Your task to perform on an android device: Go to eBay Image 0: 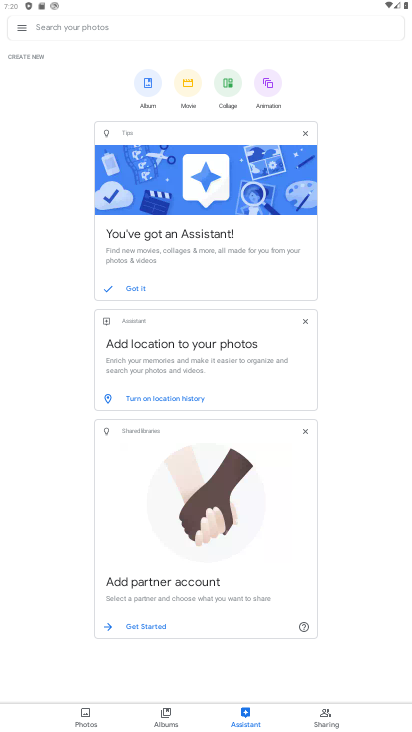
Step 0: press home button
Your task to perform on an android device: Go to eBay Image 1: 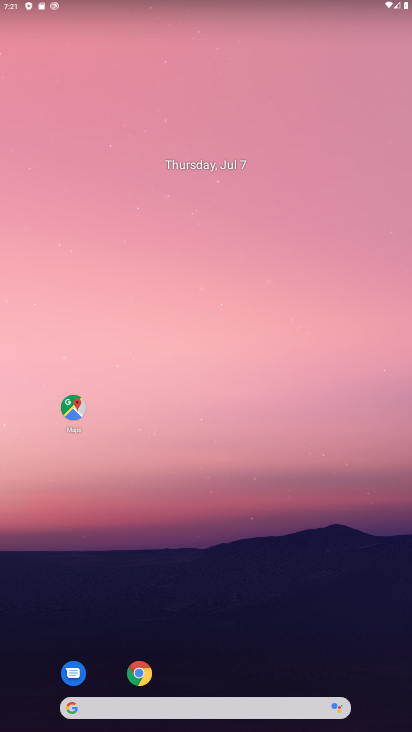
Step 1: click (140, 675)
Your task to perform on an android device: Go to eBay Image 2: 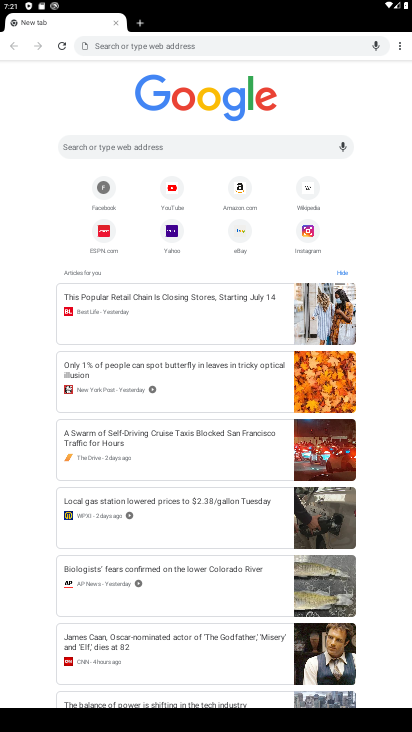
Step 2: click (239, 43)
Your task to perform on an android device: Go to eBay Image 3: 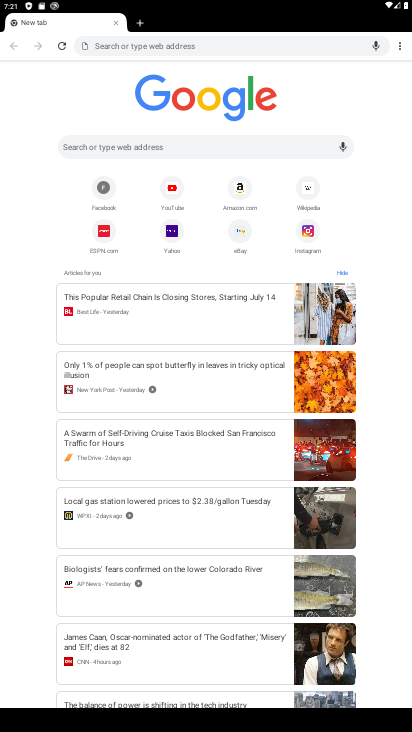
Step 3: type "eBay"
Your task to perform on an android device: Go to eBay Image 4: 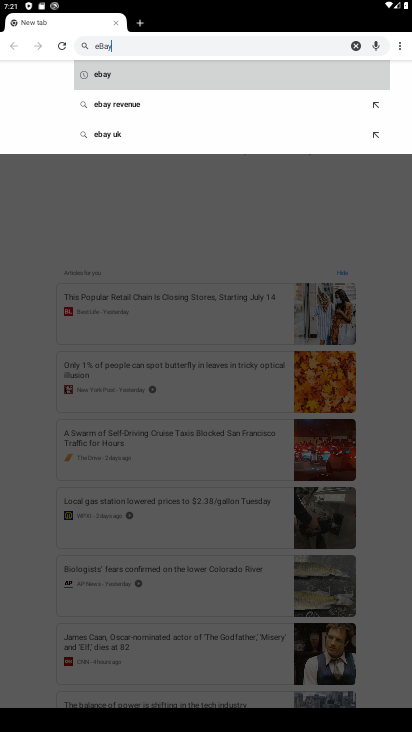
Step 4: click (138, 68)
Your task to perform on an android device: Go to eBay Image 5: 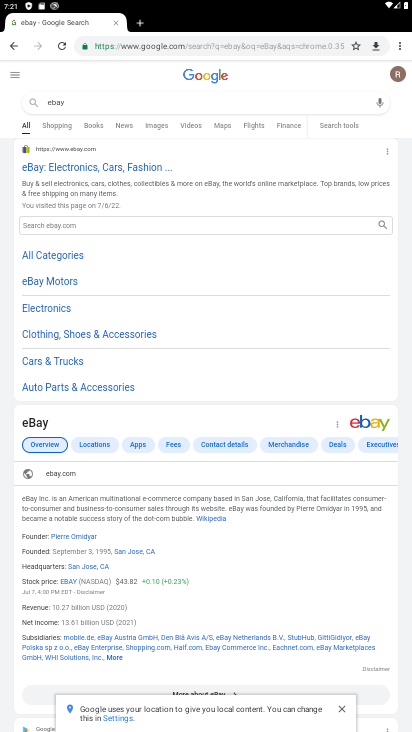
Step 5: click (61, 170)
Your task to perform on an android device: Go to eBay Image 6: 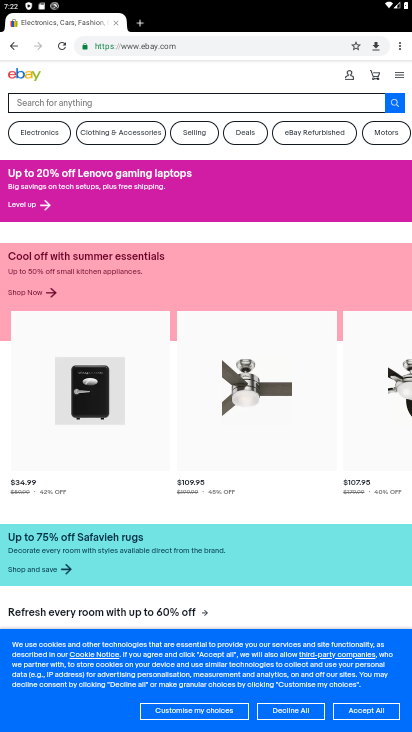
Step 6: click (373, 707)
Your task to perform on an android device: Go to eBay Image 7: 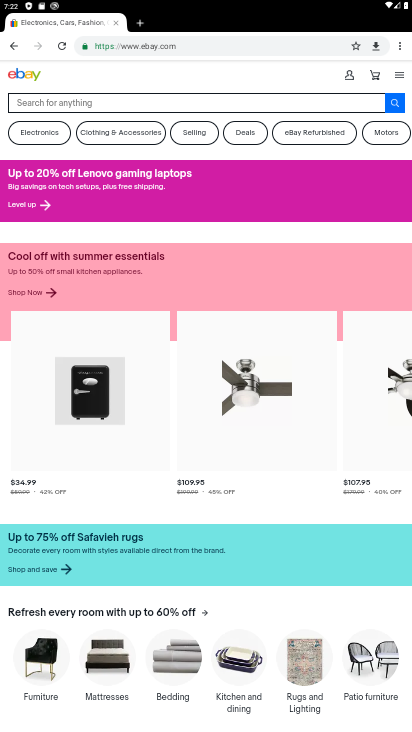
Step 7: task complete